Your task to perform on an android device: change text size in settings app Image 0: 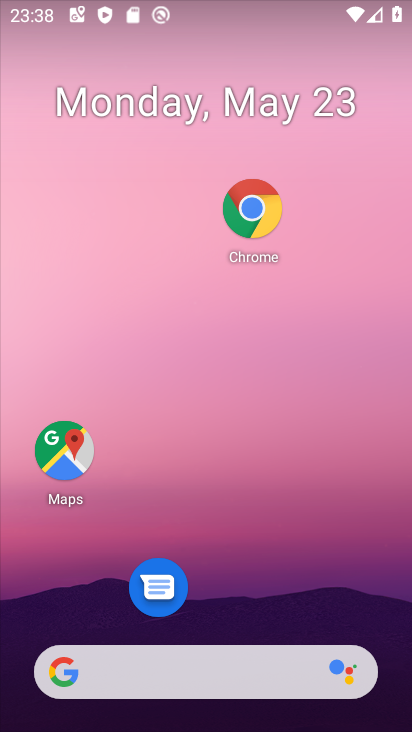
Step 0: drag from (278, 713) to (200, 168)
Your task to perform on an android device: change text size in settings app Image 1: 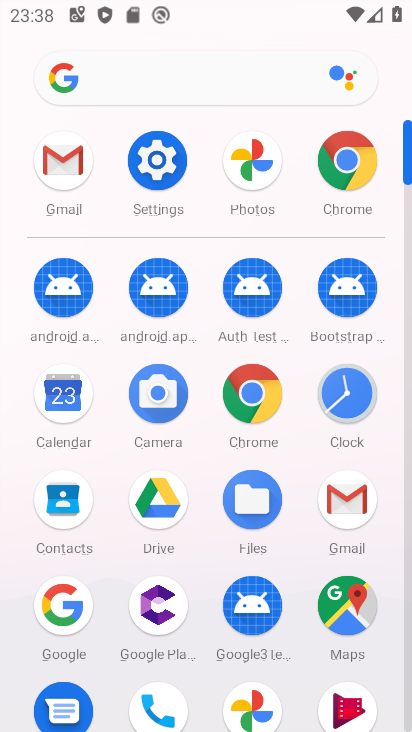
Step 1: click (152, 190)
Your task to perform on an android device: change text size in settings app Image 2: 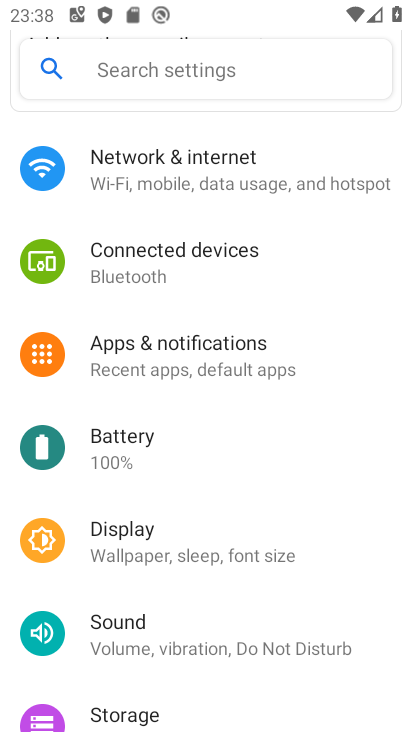
Step 2: drag from (162, 647) to (143, 309)
Your task to perform on an android device: change text size in settings app Image 3: 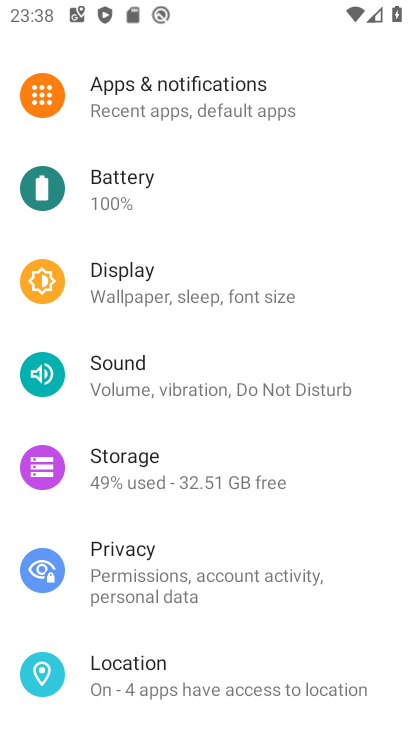
Step 3: click (124, 280)
Your task to perform on an android device: change text size in settings app Image 4: 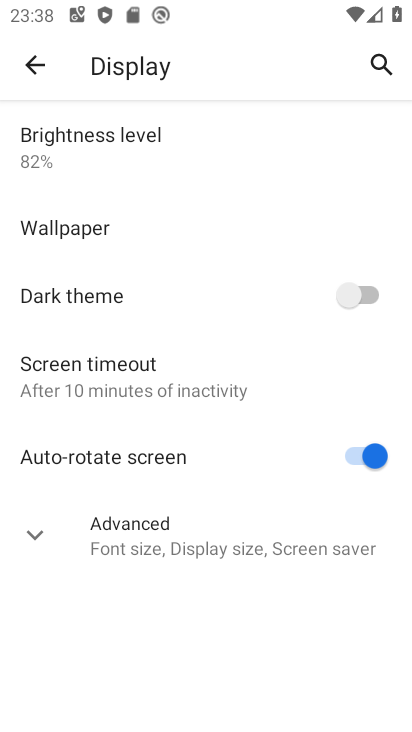
Step 4: click (209, 536)
Your task to perform on an android device: change text size in settings app Image 5: 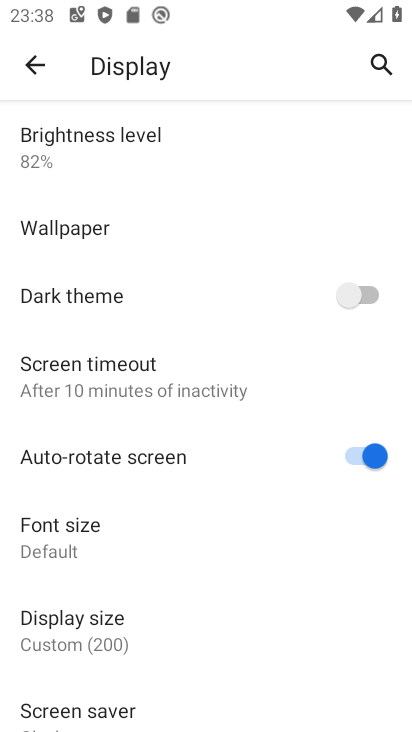
Step 5: click (49, 531)
Your task to perform on an android device: change text size in settings app Image 6: 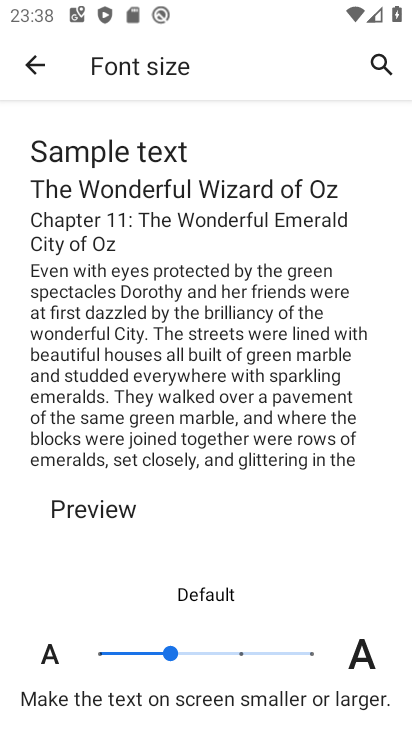
Step 6: click (242, 654)
Your task to perform on an android device: change text size in settings app Image 7: 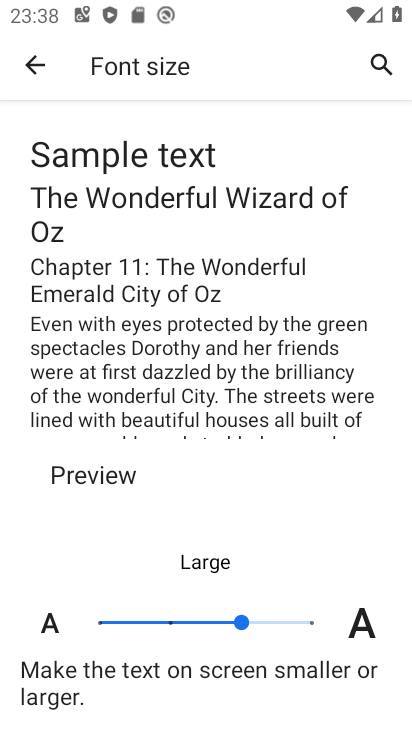
Step 7: task complete